Your task to perform on an android device: move an email to a new category in the gmail app Image 0: 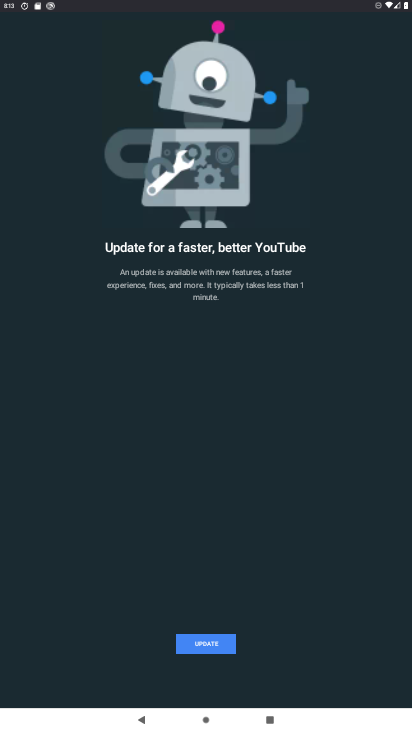
Step 0: press home button
Your task to perform on an android device: move an email to a new category in the gmail app Image 1: 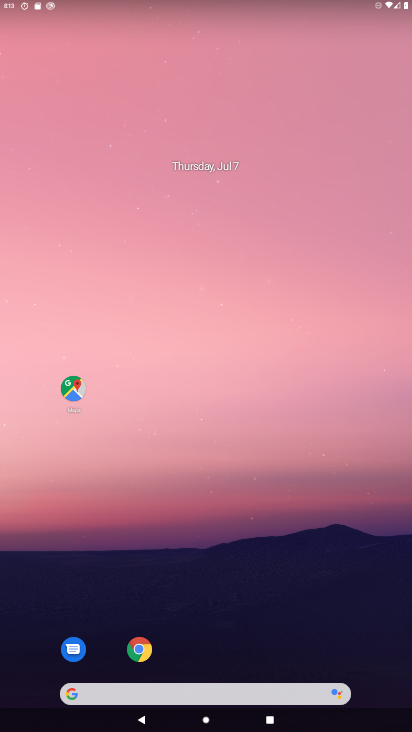
Step 1: drag from (210, 654) to (187, 77)
Your task to perform on an android device: move an email to a new category in the gmail app Image 2: 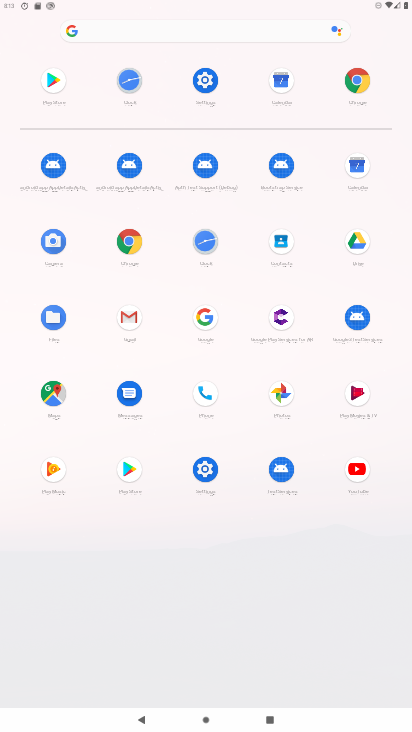
Step 2: click (132, 313)
Your task to perform on an android device: move an email to a new category in the gmail app Image 3: 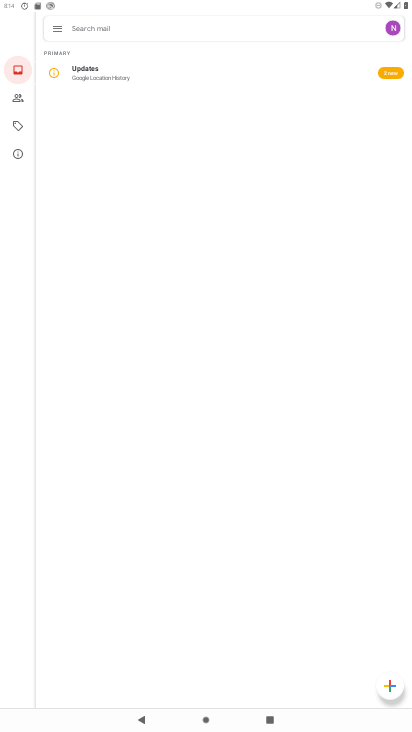
Step 3: click (108, 68)
Your task to perform on an android device: move an email to a new category in the gmail app Image 4: 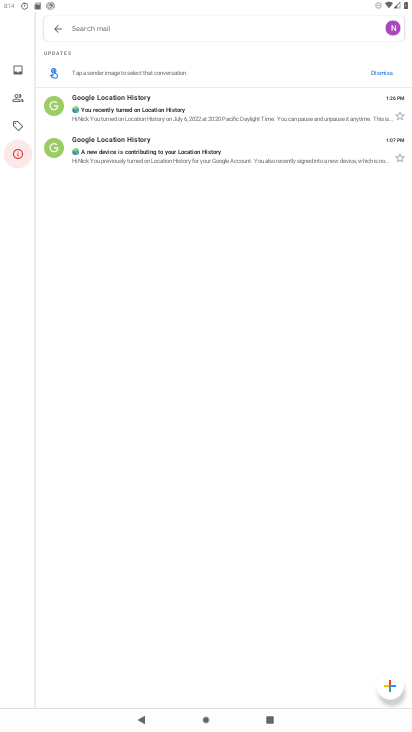
Step 4: click (53, 103)
Your task to perform on an android device: move an email to a new category in the gmail app Image 5: 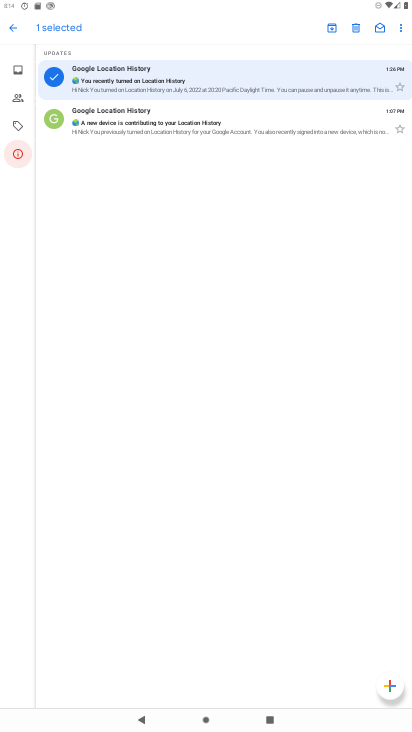
Step 5: click (397, 27)
Your task to perform on an android device: move an email to a new category in the gmail app Image 6: 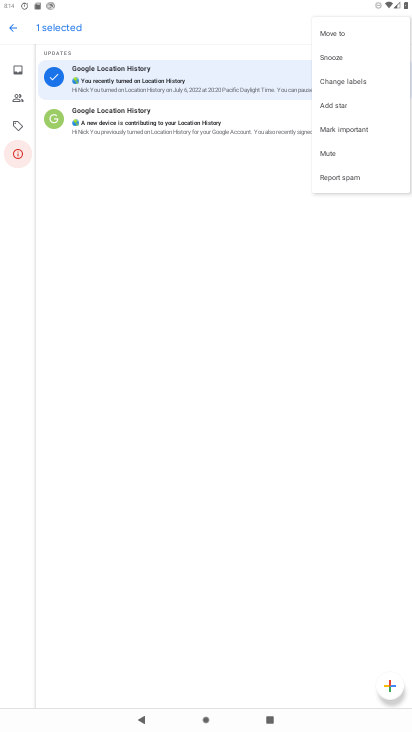
Step 6: click (344, 80)
Your task to perform on an android device: move an email to a new category in the gmail app Image 7: 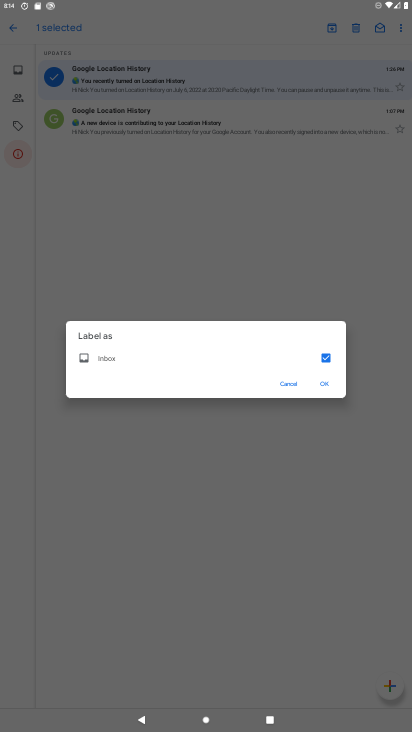
Step 7: click (320, 355)
Your task to perform on an android device: move an email to a new category in the gmail app Image 8: 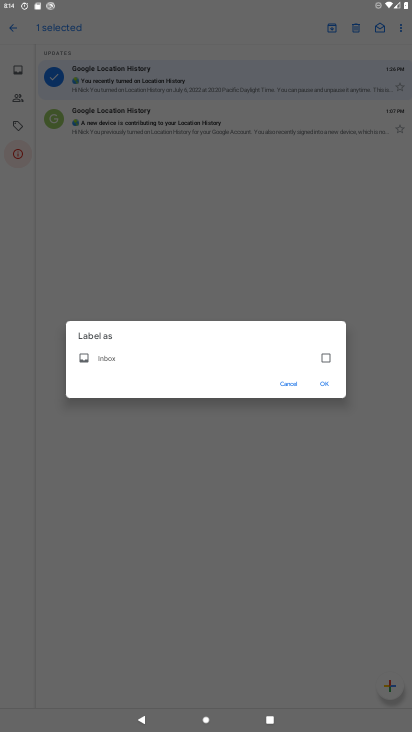
Step 8: click (326, 389)
Your task to perform on an android device: move an email to a new category in the gmail app Image 9: 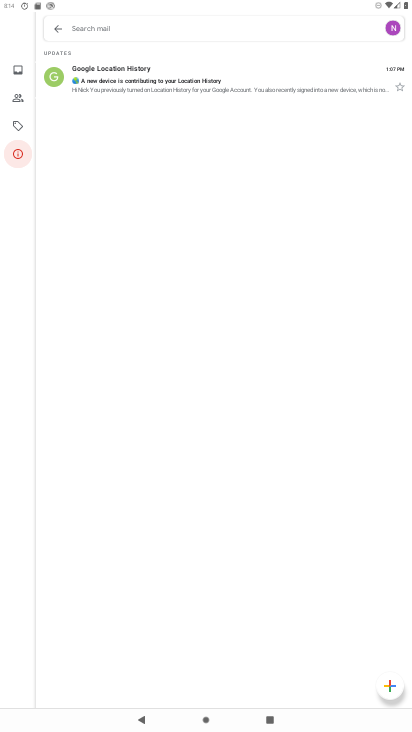
Step 9: task complete